Your task to perform on an android device: Open the map Image 0: 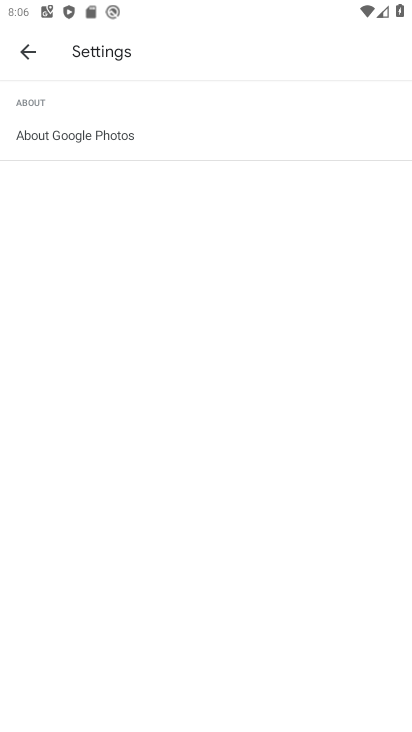
Step 0: press home button
Your task to perform on an android device: Open the map Image 1: 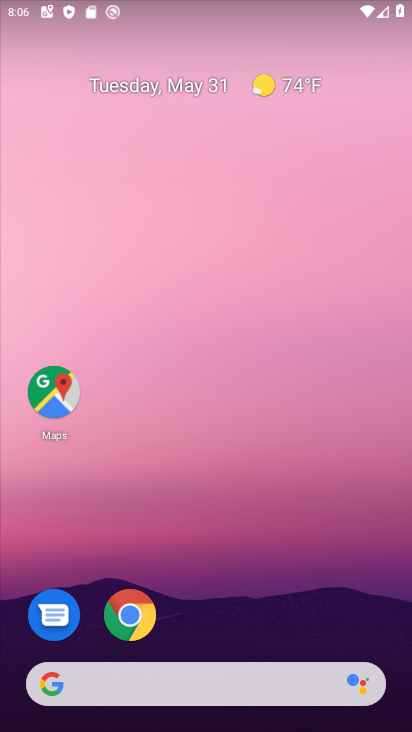
Step 1: click (55, 395)
Your task to perform on an android device: Open the map Image 2: 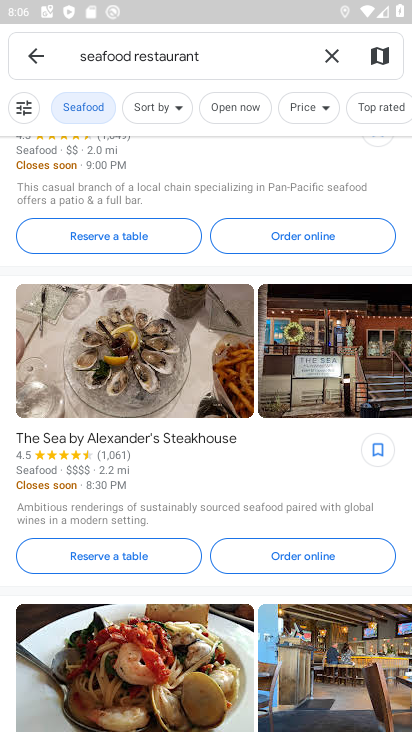
Step 2: task complete